Your task to perform on an android device: check android version Image 0: 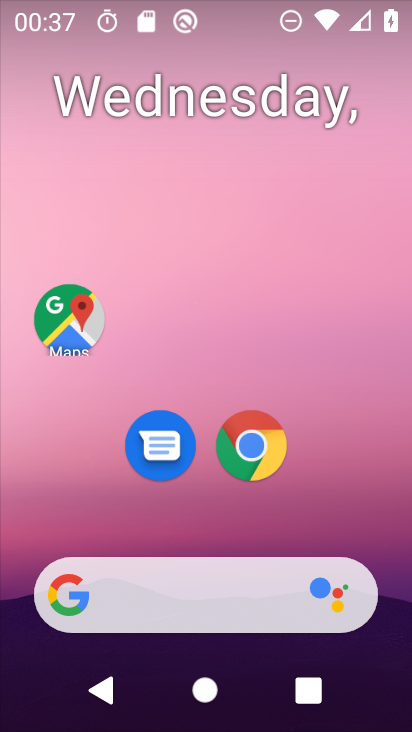
Step 0: drag from (295, 480) to (374, 40)
Your task to perform on an android device: check android version Image 1: 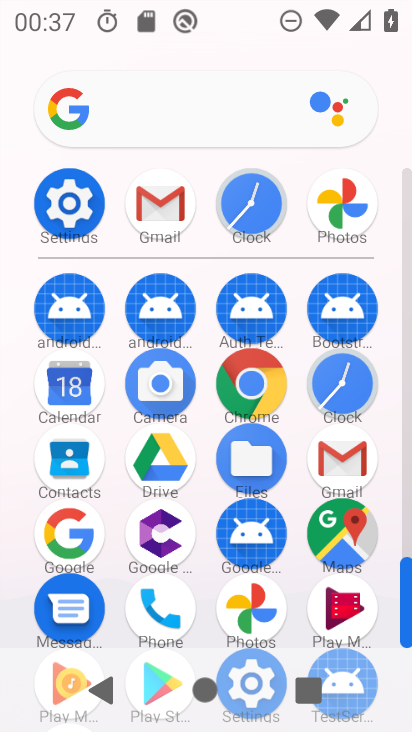
Step 1: click (73, 208)
Your task to perform on an android device: check android version Image 2: 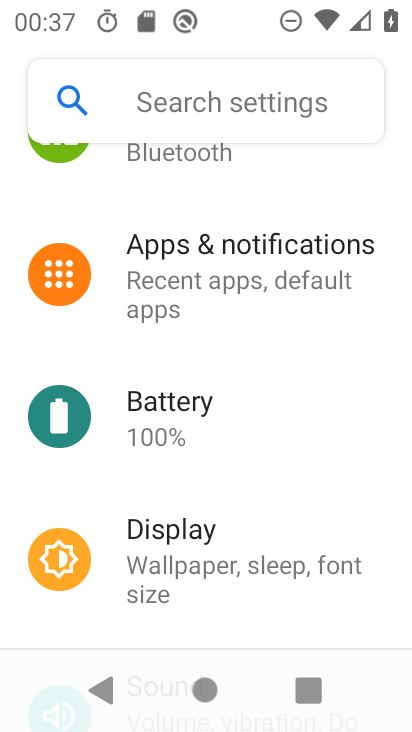
Step 2: drag from (184, 557) to (254, 95)
Your task to perform on an android device: check android version Image 3: 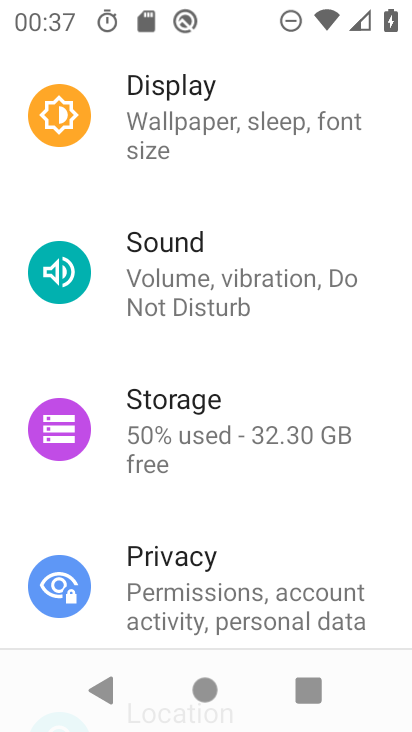
Step 3: drag from (236, 532) to (272, 102)
Your task to perform on an android device: check android version Image 4: 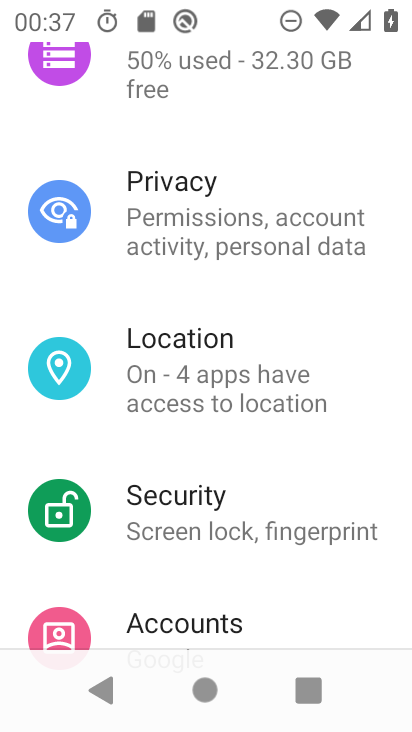
Step 4: drag from (307, 527) to (321, 120)
Your task to perform on an android device: check android version Image 5: 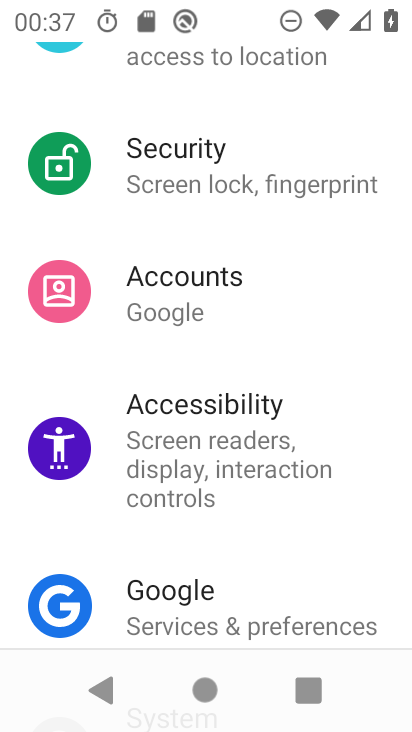
Step 5: drag from (252, 553) to (351, 192)
Your task to perform on an android device: check android version Image 6: 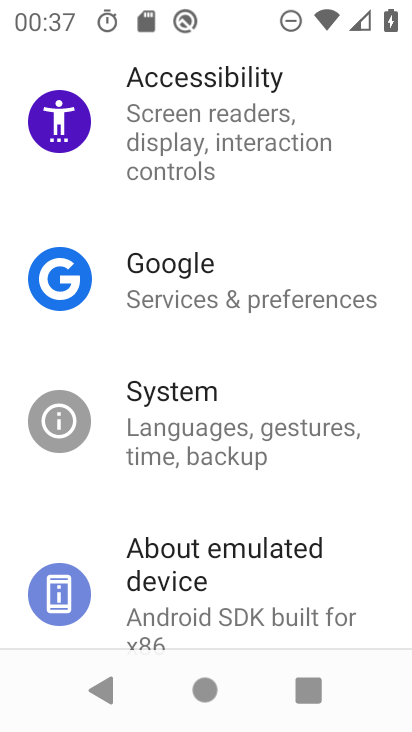
Step 6: drag from (257, 581) to (297, 164)
Your task to perform on an android device: check android version Image 7: 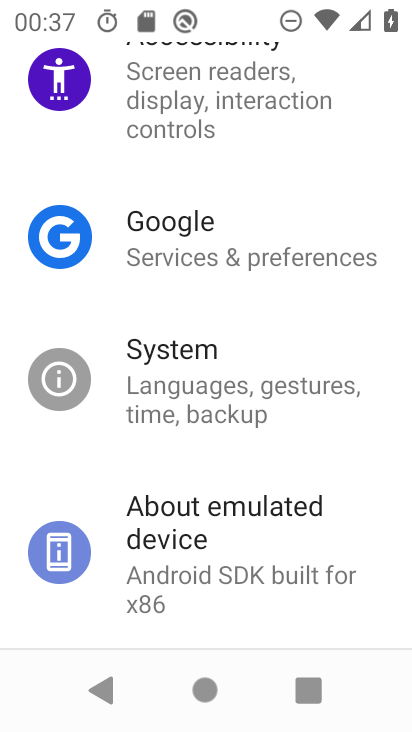
Step 7: click (235, 524)
Your task to perform on an android device: check android version Image 8: 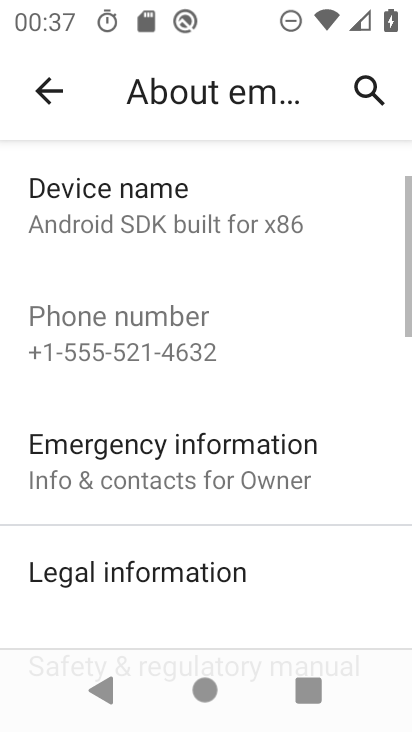
Step 8: drag from (234, 533) to (252, 68)
Your task to perform on an android device: check android version Image 9: 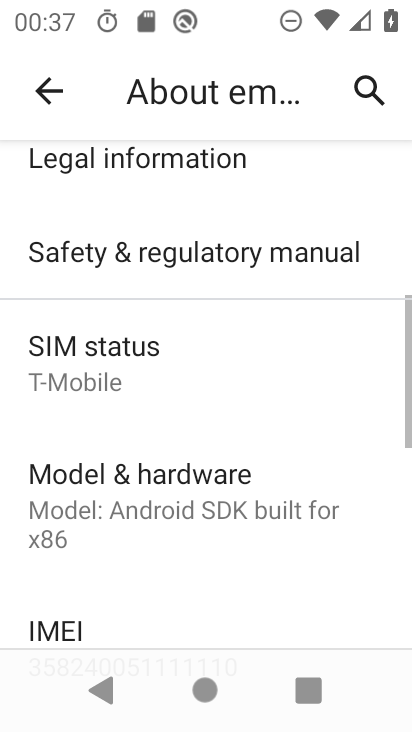
Step 9: drag from (281, 517) to (326, 112)
Your task to perform on an android device: check android version Image 10: 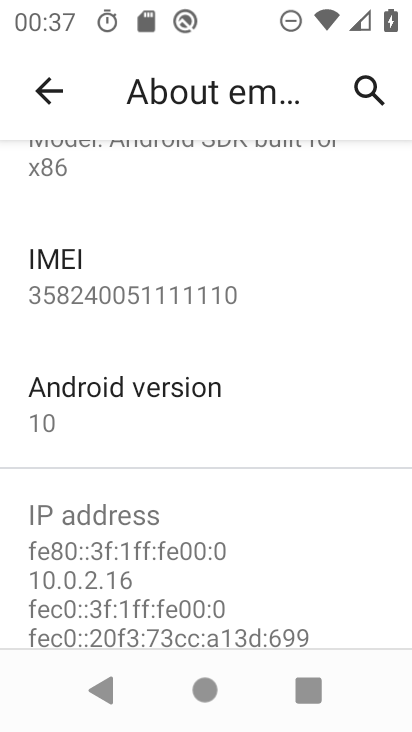
Step 10: click (246, 392)
Your task to perform on an android device: check android version Image 11: 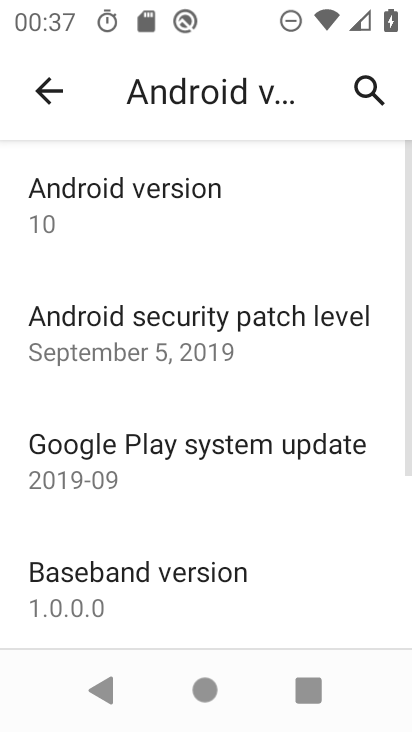
Step 11: click (186, 223)
Your task to perform on an android device: check android version Image 12: 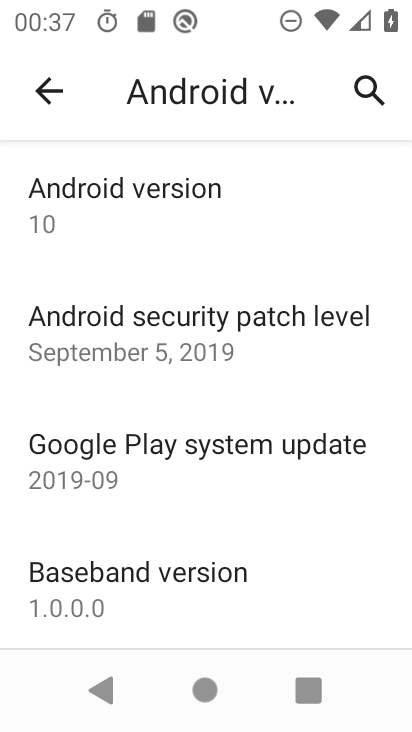
Step 12: task complete